Your task to perform on an android device: Clear the cart on newegg. Add acer nitro to the cart on newegg, then select checkout. Image 0: 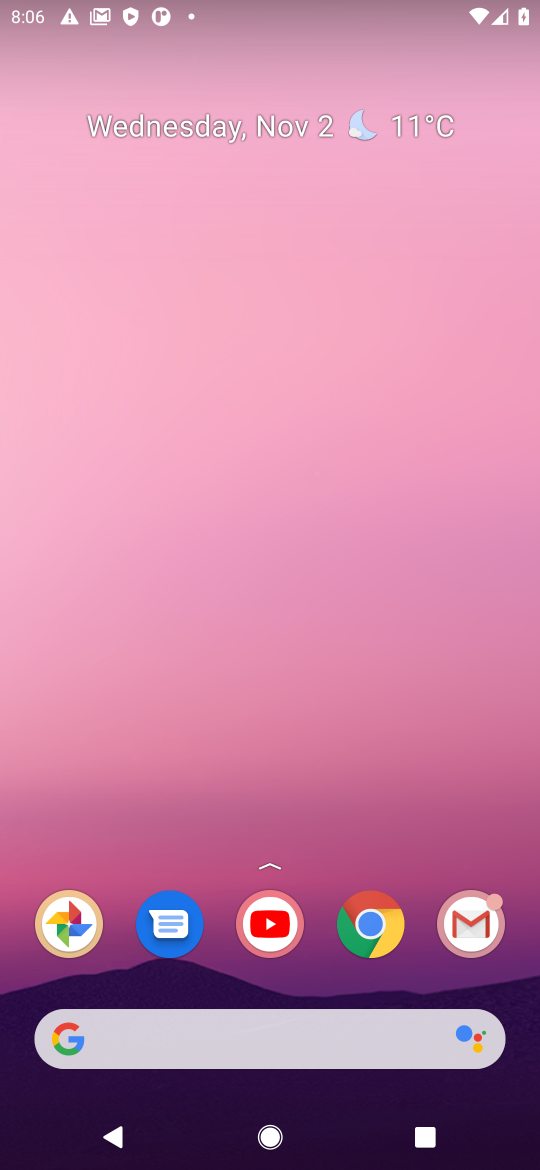
Step 0: click (384, 924)
Your task to perform on an android device: Clear the cart on newegg. Add acer nitro to the cart on newegg, then select checkout. Image 1: 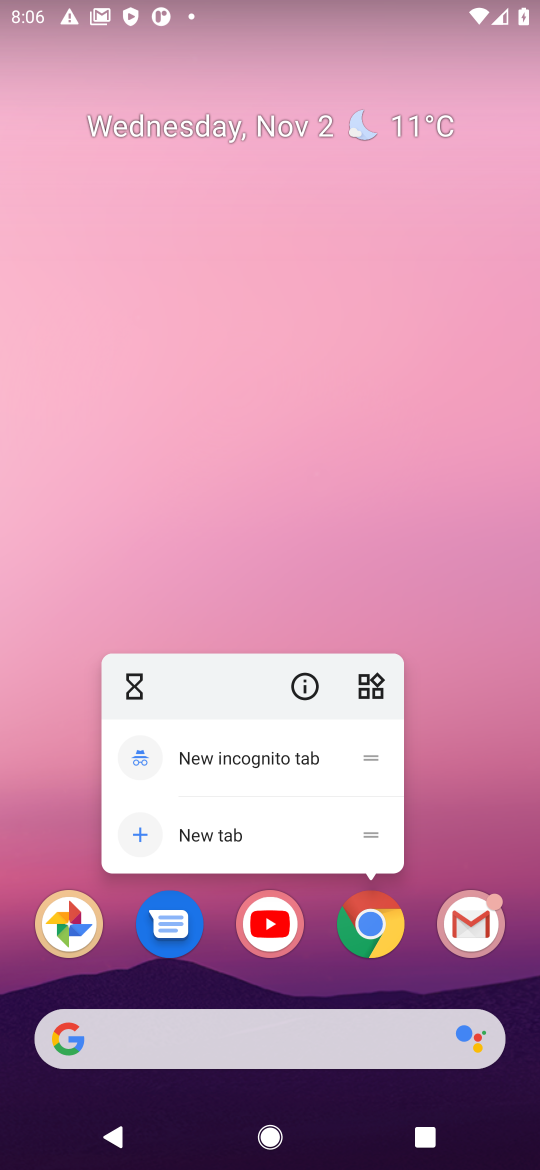
Step 1: click (381, 927)
Your task to perform on an android device: Clear the cart on newegg. Add acer nitro to the cart on newegg, then select checkout. Image 2: 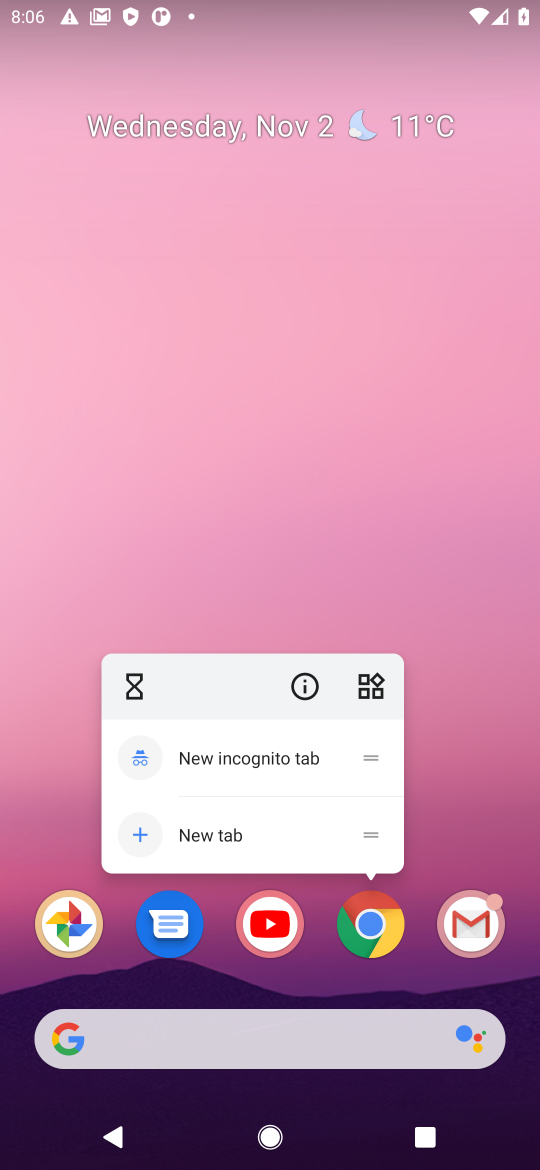
Step 2: click (383, 926)
Your task to perform on an android device: Clear the cart on newegg. Add acer nitro to the cart on newegg, then select checkout. Image 3: 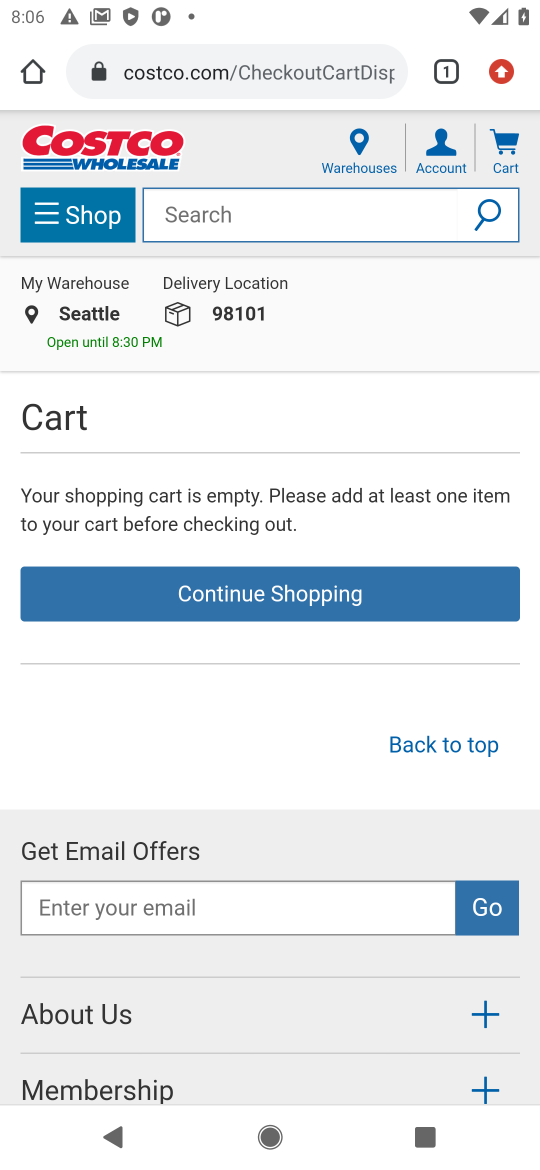
Step 3: click (208, 74)
Your task to perform on an android device: Clear the cart on newegg. Add acer nitro to the cart on newegg, then select checkout. Image 4: 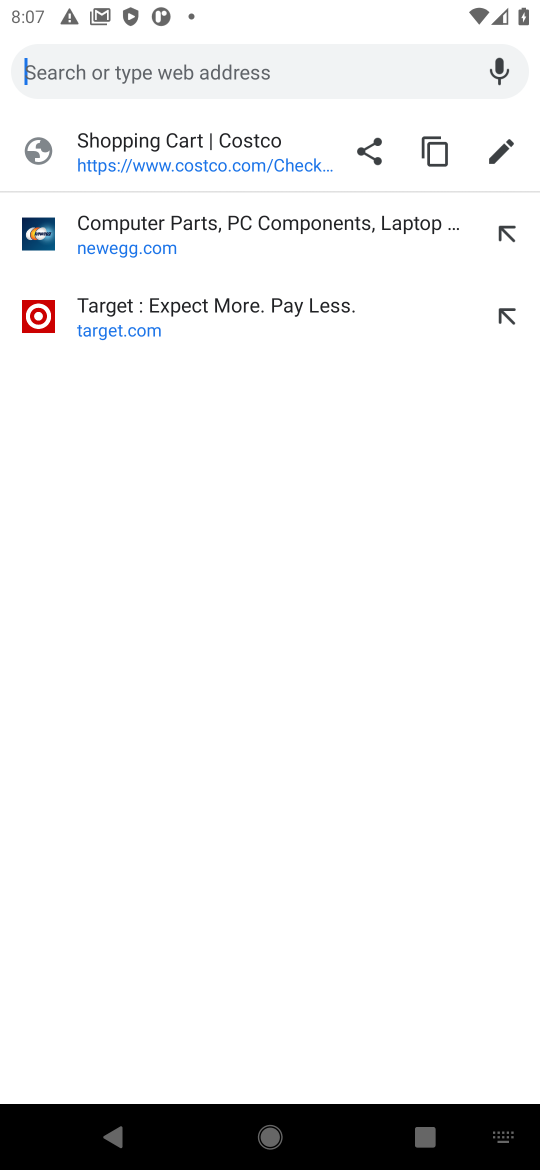
Step 4: type "newegg"
Your task to perform on an android device: Clear the cart on newegg. Add acer nitro to the cart on newegg, then select checkout. Image 5: 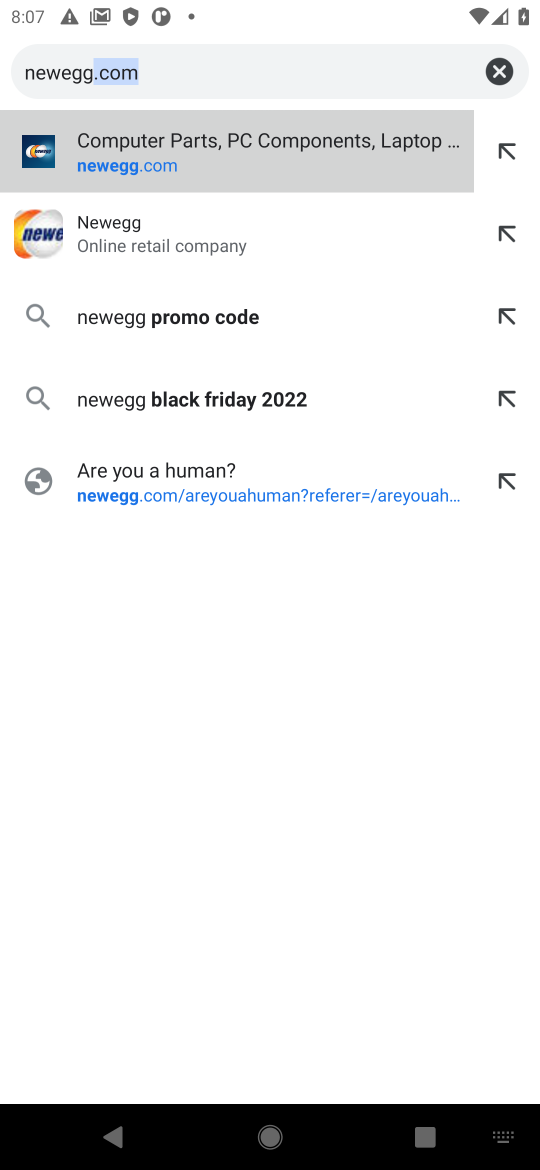
Step 5: type ""
Your task to perform on an android device: Clear the cart on newegg. Add acer nitro to the cart on newegg, then select checkout. Image 6: 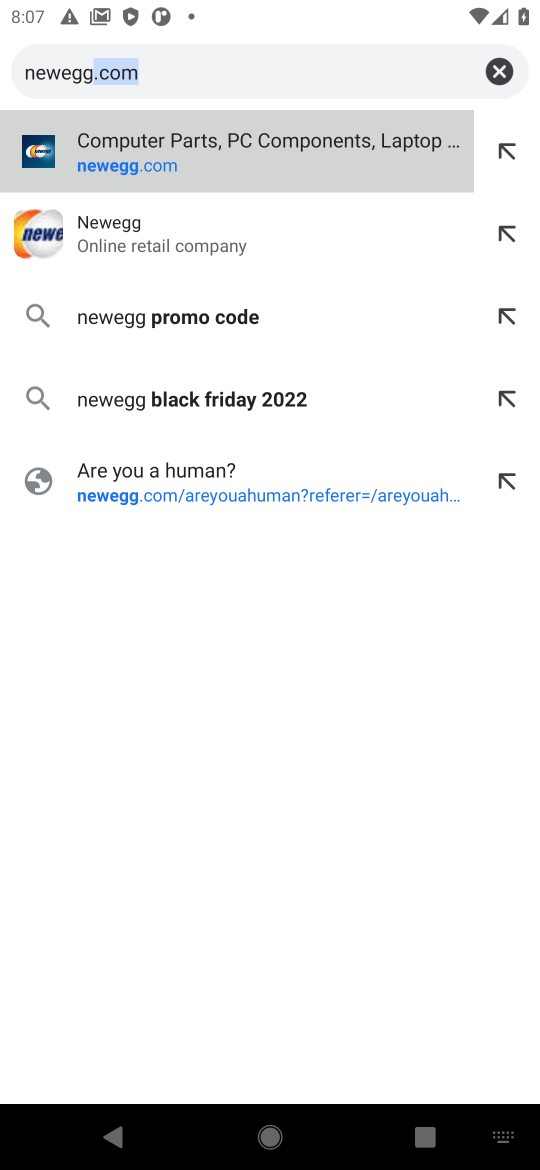
Step 6: click (154, 229)
Your task to perform on an android device: Clear the cart on newegg. Add acer nitro to the cart on newegg, then select checkout. Image 7: 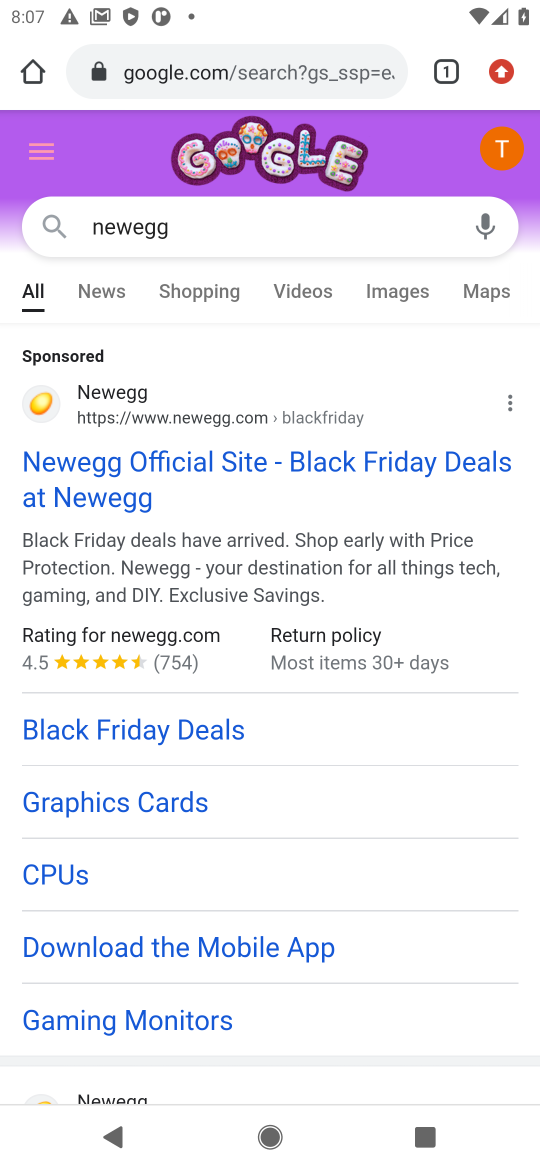
Step 7: click (156, 463)
Your task to perform on an android device: Clear the cart on newegg. Add acer nitro to the cart on newegg, then select checkout. Image 8: 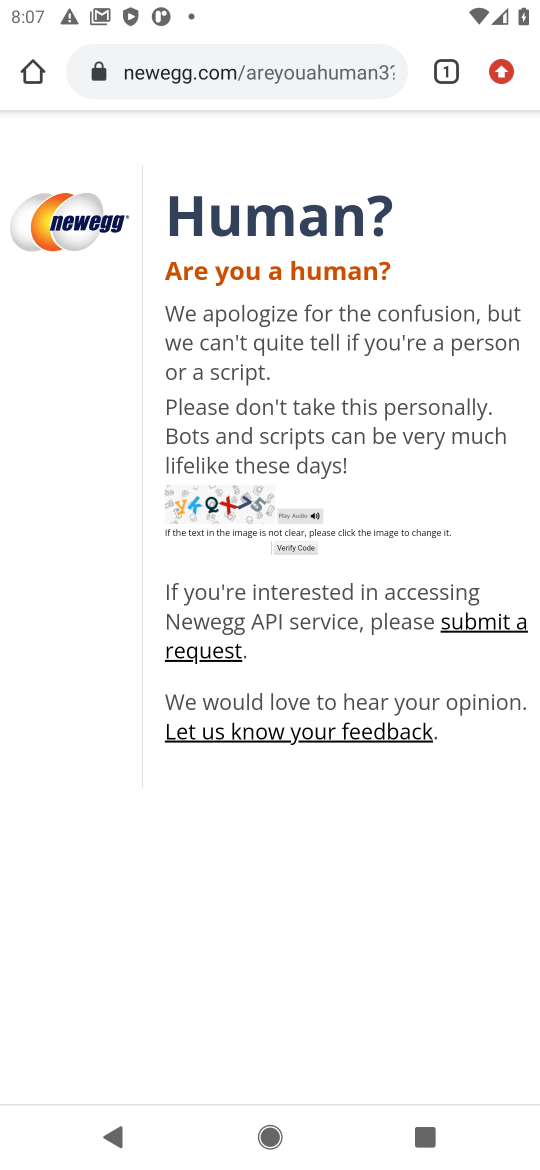
Step 8: press back button
Your task to perform on an android device: Clear the cart on newegg. Add acer nitro to the cart on newegg, then select checkout. Image 9: 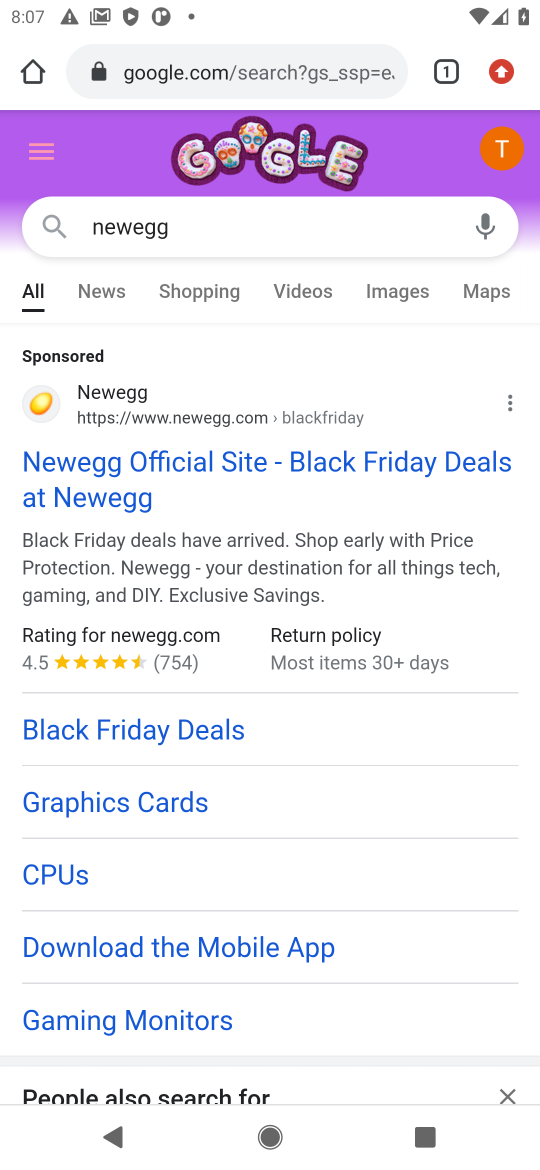
Step 9: click (175, 462)
Your task to perform on an android device: Clear the cart on newegg. Add acer nitro to the cart on newegg, then select checkout. Image 10: 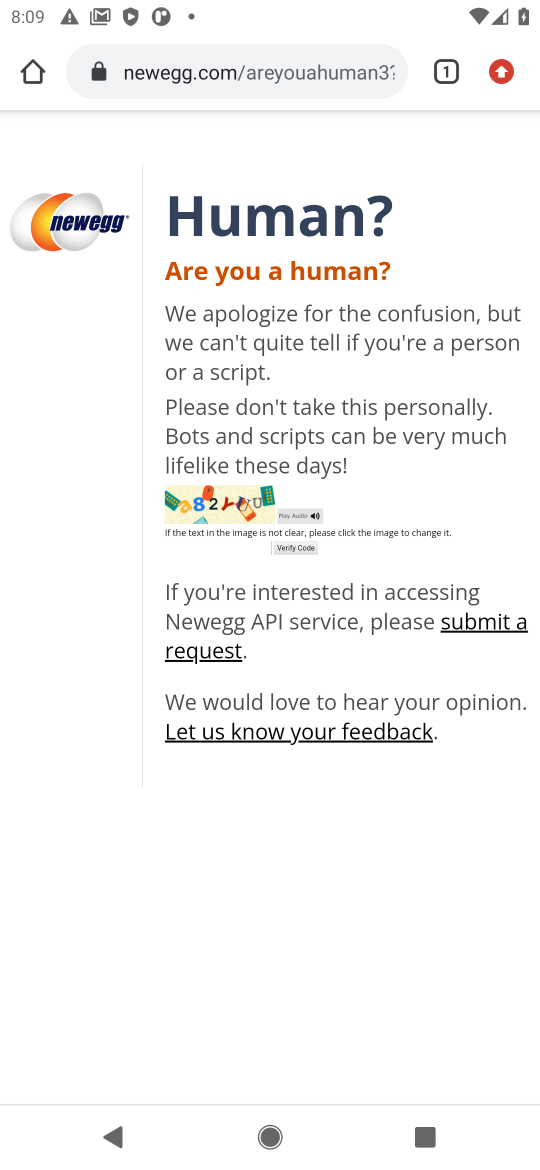
Step 10: press back button
Your task to perform on an android device: Clear the cart on newegg. Add acer nitro to the cart on newegg, then select checkout. Image 11: 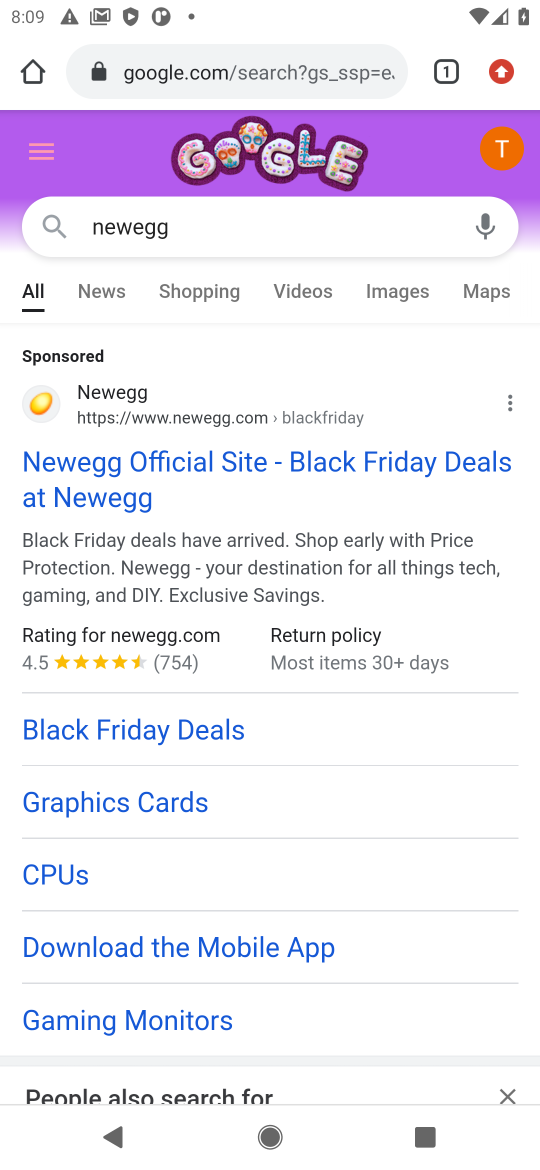
Step 11: drag from (179, 956) to (341, 258)
Your task to perform on an android device: Clear the cart on newegg. Add acer nitro to the cart on newegg, then select checkout. Image 12: 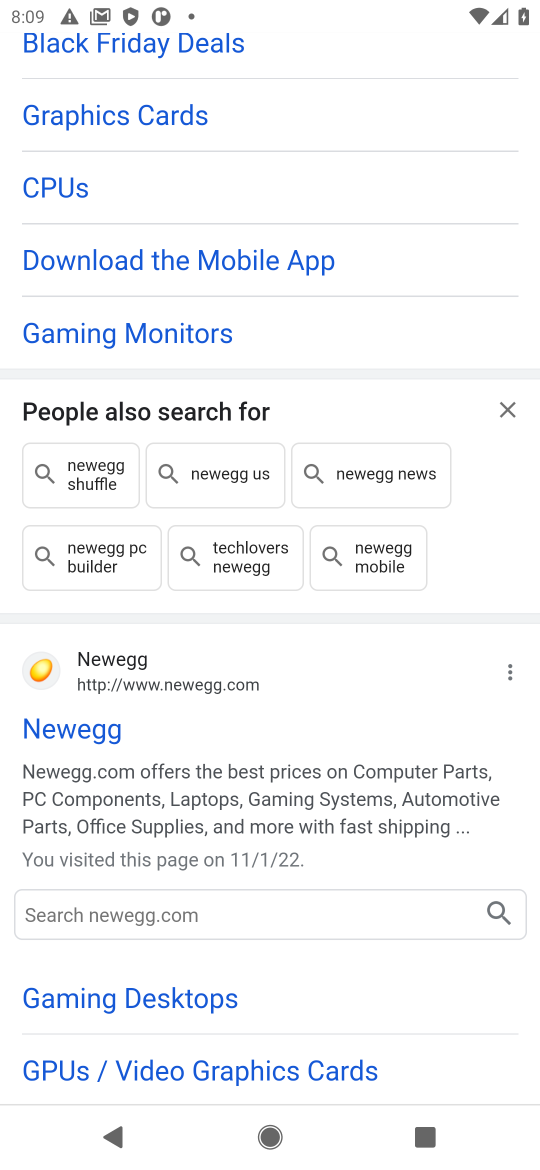
Step 12: click (92, 743)
Your task to perform on an android device: Clear the cart on newegg. Add acer nitro to the cart on newegg, then select checkout. Image 13: 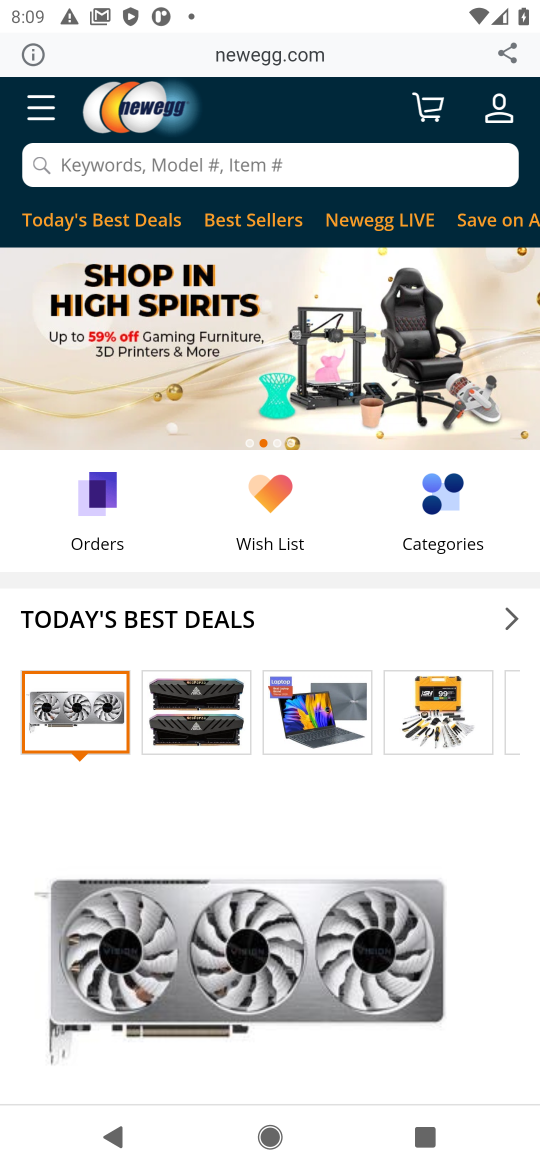
Step 13: click (438, 108)
Your task to perform on an android device: Clear the cart on newegg. Add acer nitro to the cart on newegg, then select checkout. Image 14: 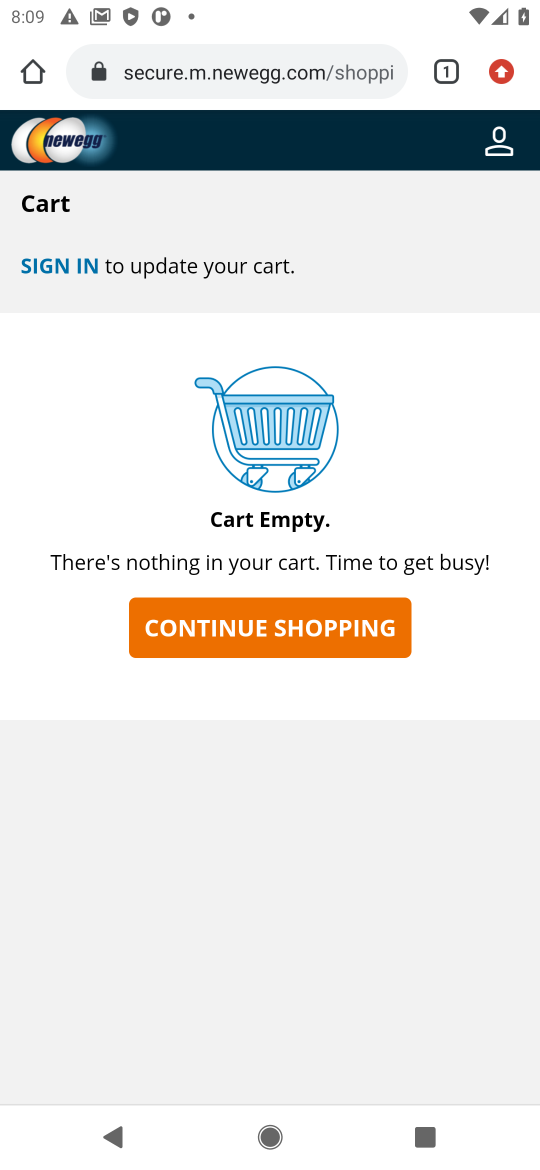
Step 14: press back button
Your task to perform on an android device: Clear the cart on newegg. Add acer nitro to the cart on newegg, then select checkout. Image 15: 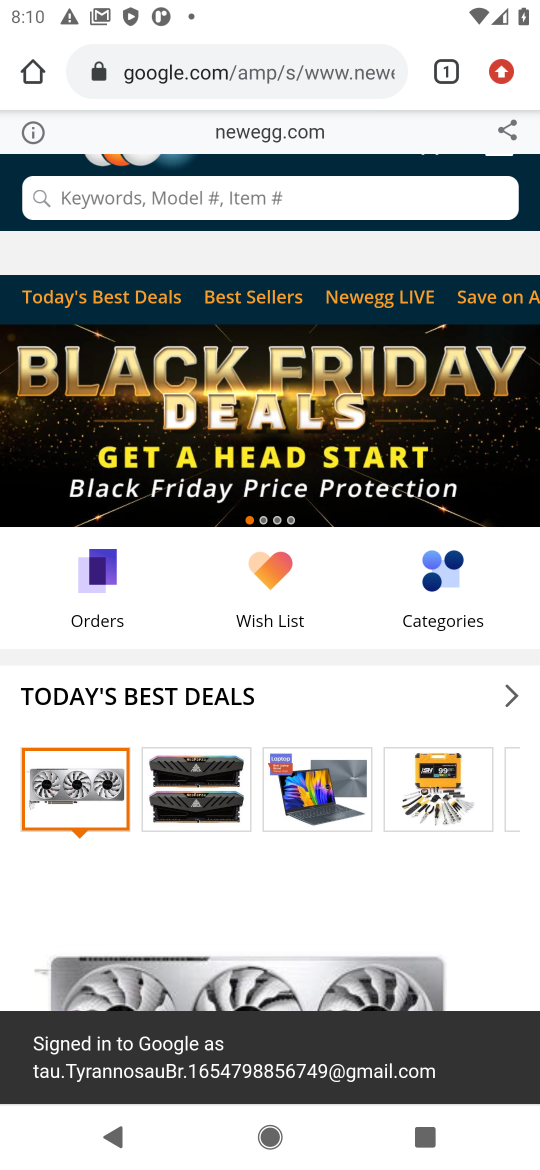
Step 15: click (226, 188)
Your task to perform on an android device: Clear the cart on newegg. Add acer nitro to the cart on newegg, then select checkout. Image 16: 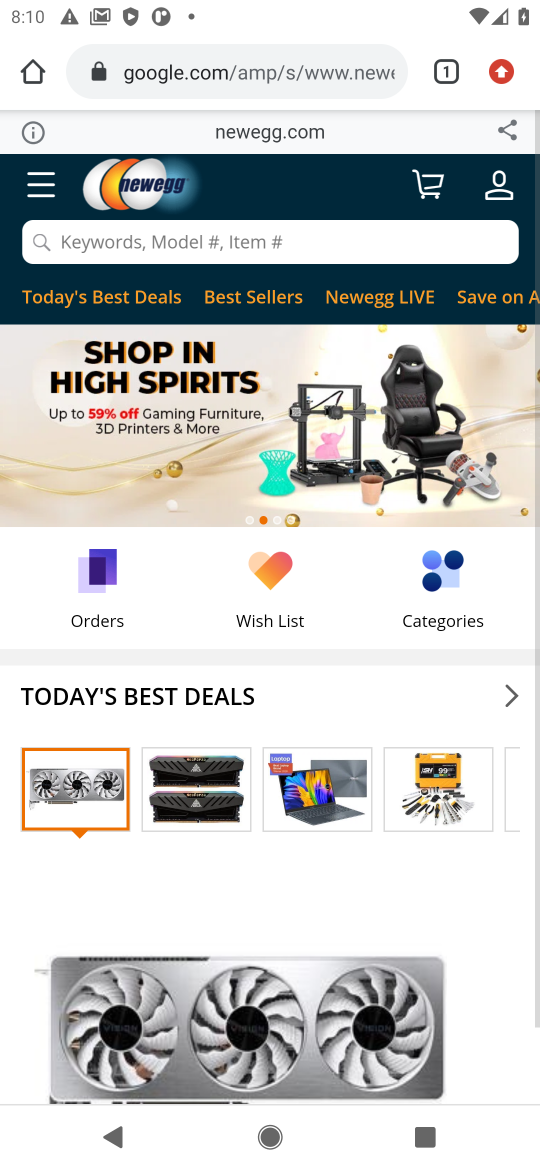
Step 16: click (258, 257)
Your task to perform on an android device: Clear the cart on newegg. Add acer nitro to the cart on newegg, then select checkout. Image 17: 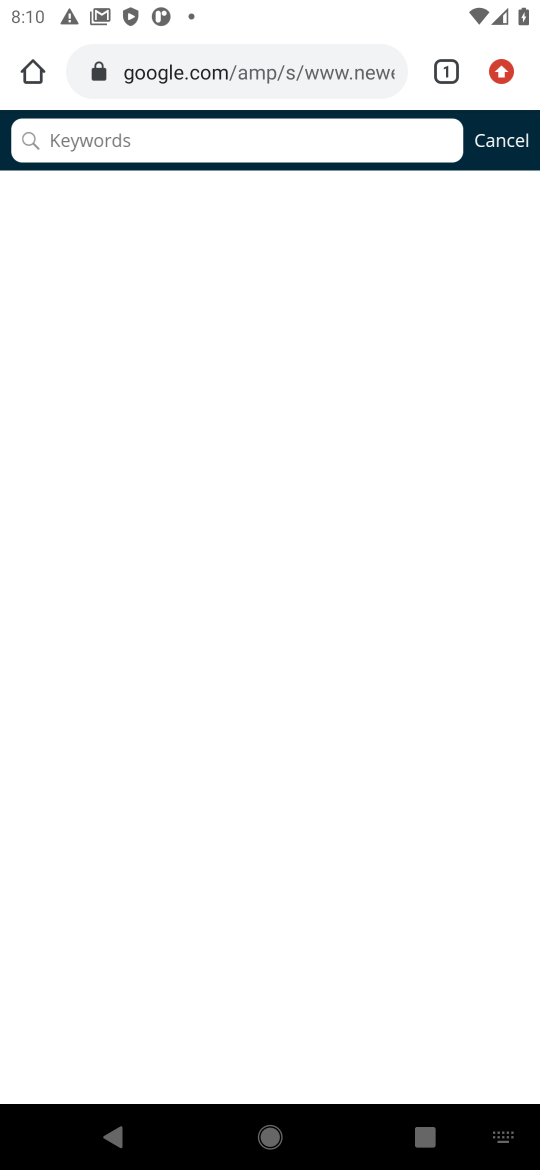
Step 17: type "acer  nitro"
Your task to perform on an android device: Clear the cart on newegg. Add acer nitro to the cart on newegg, then select checkout. Image 18: 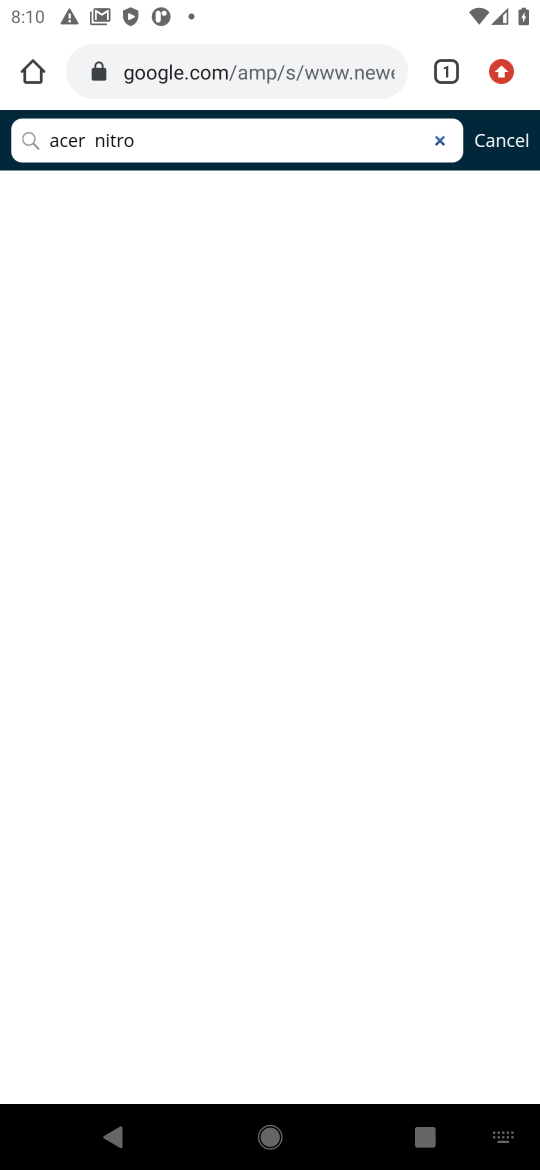
Step 18: click (426, 248)
Your task to perform on an android device: Clear the cart on newegg. Add acer nitro to the cart on newegg, then select checkout. Image 19: 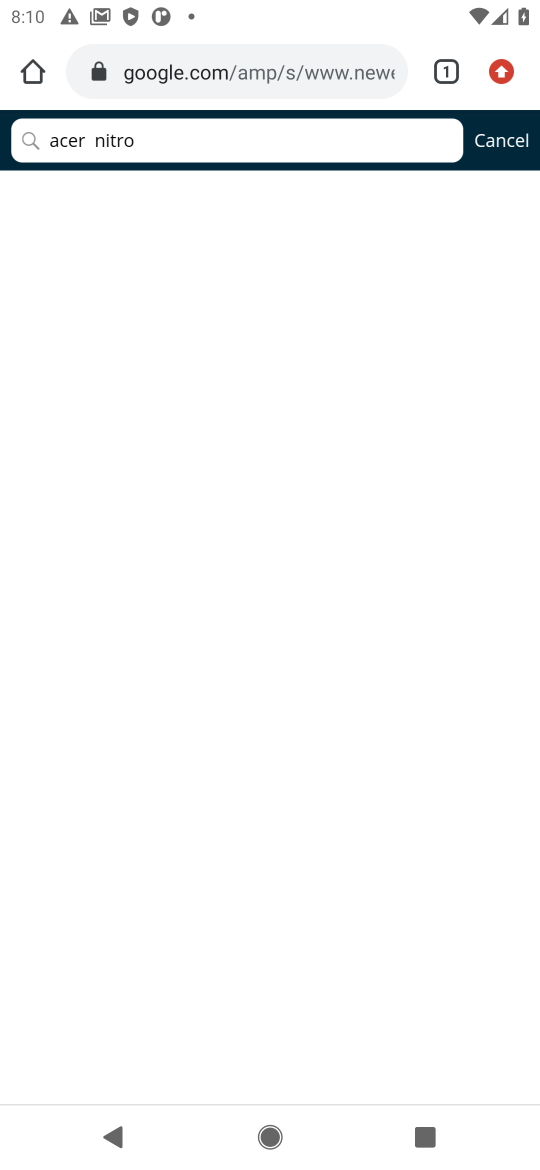
Step 19: type ""
Your task to perform on an android device: Clear the cart on newegg. Add acer nitro to the cart on newegg, then select checkout. Image 20: 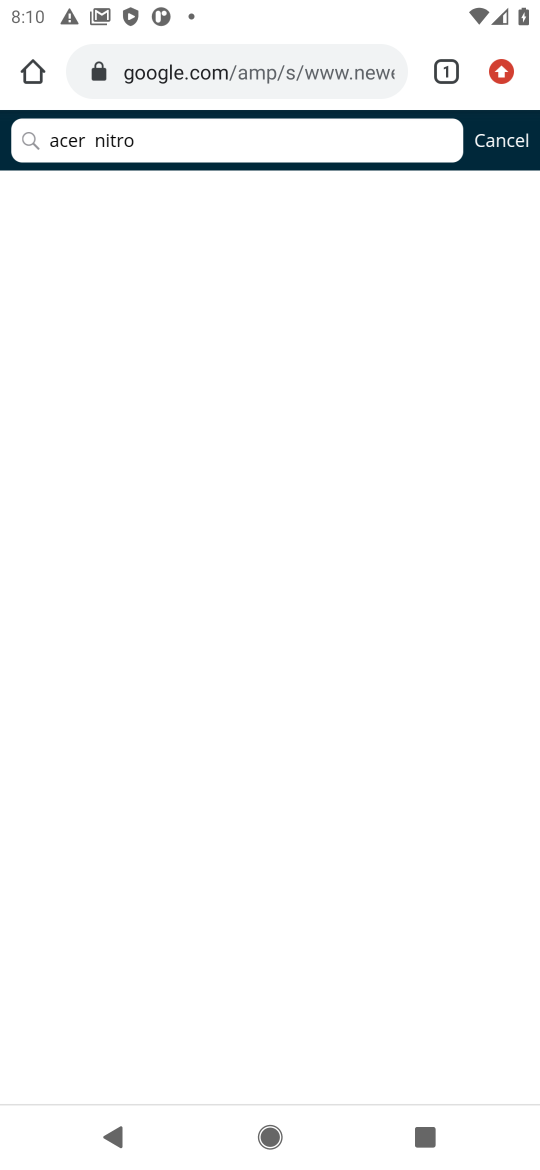
Step 20: task complete